Your task to perform on an android device: turn pop-ups on in chrome Image 0: 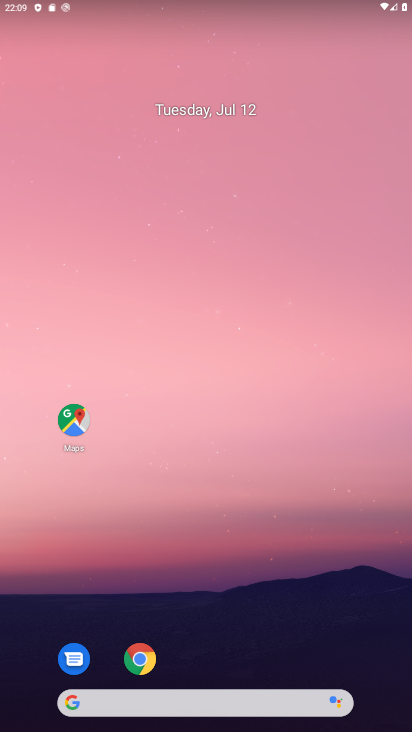
Step 0: drag from (309, 599) to (296, 183)
Your task to perform on an android device: turn pop-ups on in chrome Image 1: 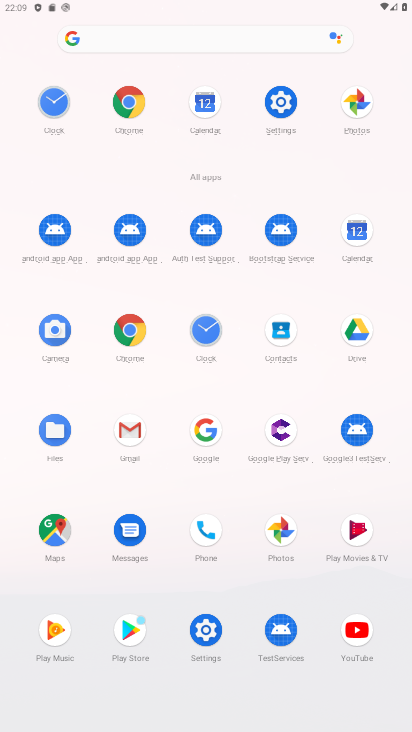
Step 1: click (134, 94)
Your task to perform on an android device: turn pop-ups on in chrome Image 2: 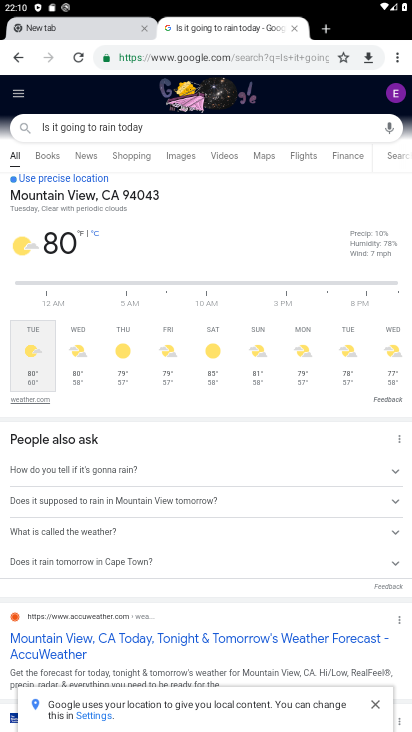
Step 2: click (399, 55)
Your task to perform on an android device: turn pop-ups on in chrome Image 3: 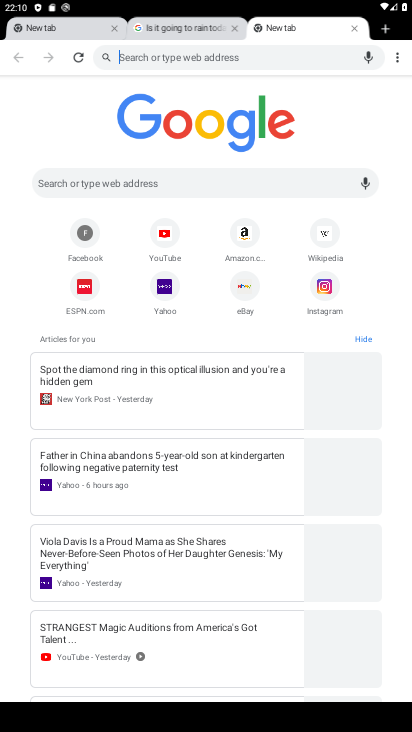
Step 3: click (399, 55)
Your task to perform on an android device: turn pop-ups on in chrome Image 4: 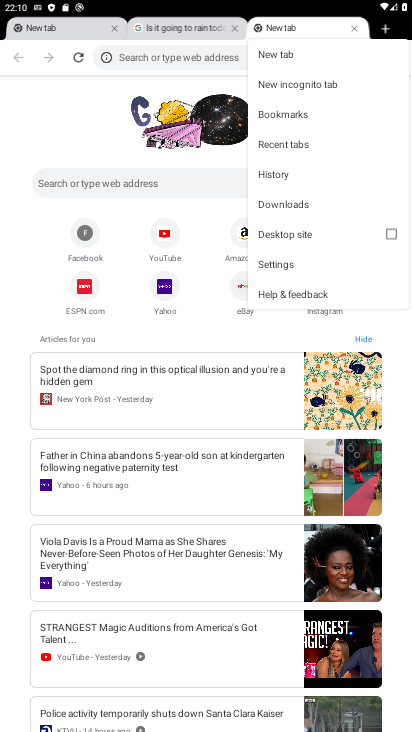
Step 4: click (283, 263)
Your task to perform on an android device: turn pop-ups on in chrome Image 5: 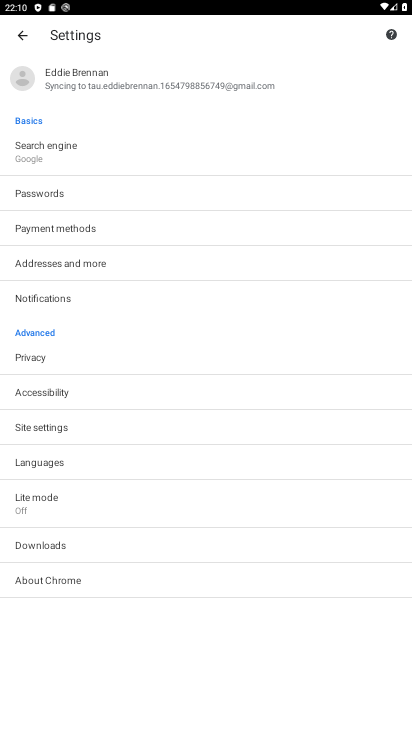
Step 5: click (85, 430)
Your task to perform on an android device: turn pop-ups on in chrome Image 6: 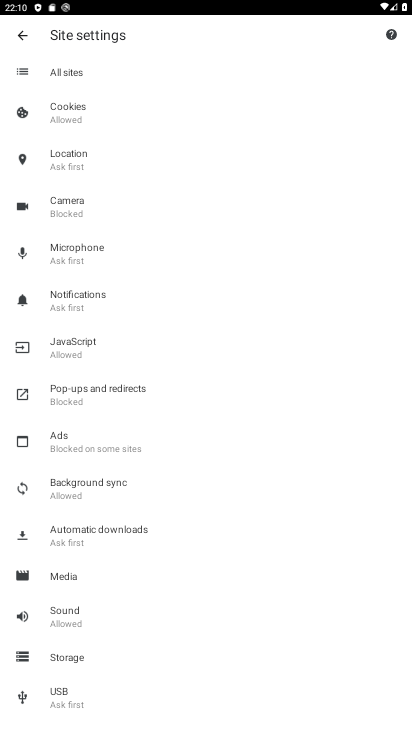
Step 6: click (113, 397)
Your task to perform on an android device: turn pop-ups on in chrome Image 7: 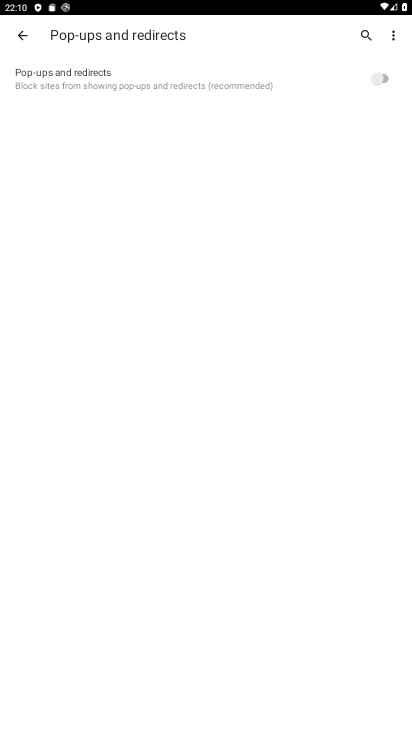
Step 7: click (371, 76)
Your task to perform on an android device: turn pop-ups on in chrome Image 8: 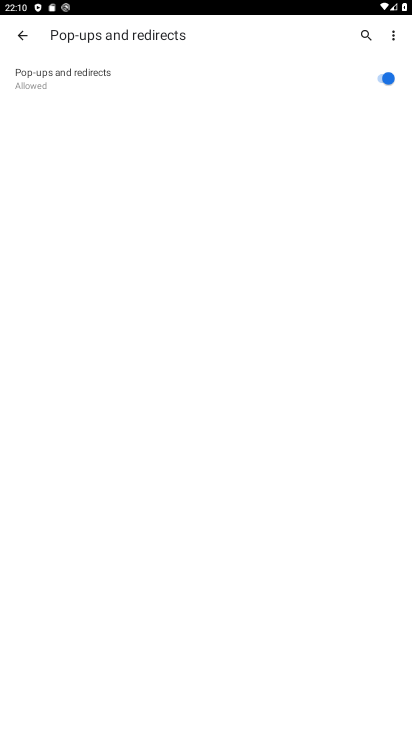
Step 8: task complete